Your task to perform on an android device: create a new album in the google photos Image 0: 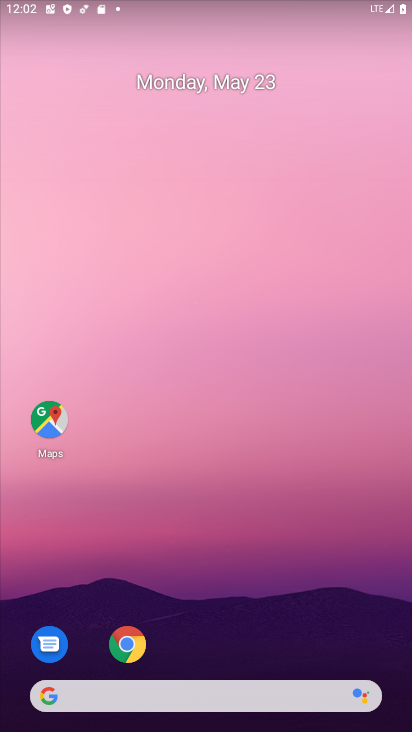
Step 0: drag from (305, 661) to (238, 0)
Your task to perform on an android device: create a new album in the google photos Image 1: 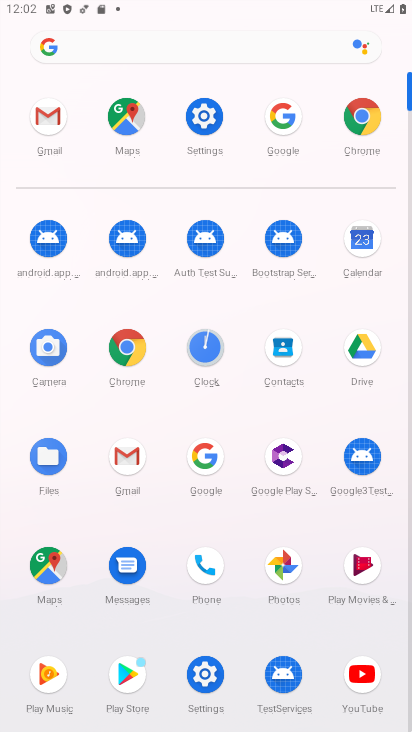
Step 1: click (278, 563)
Your task to perform on an android device: create a new album in the google photos Image 2: 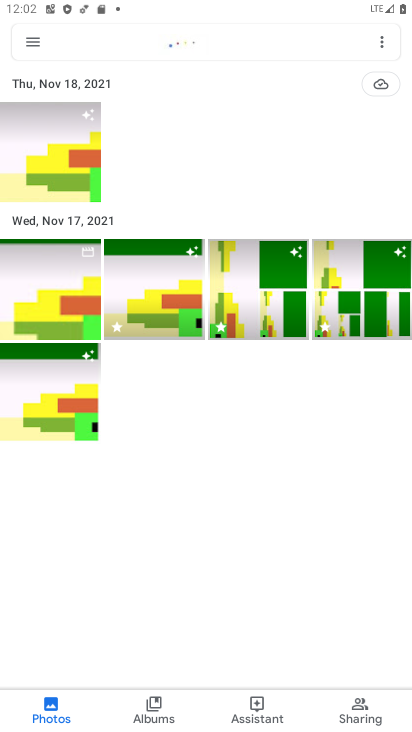
Step 2: click (45, 187)
Your task to perform on an android device: create a new album in the google photos Image 3: 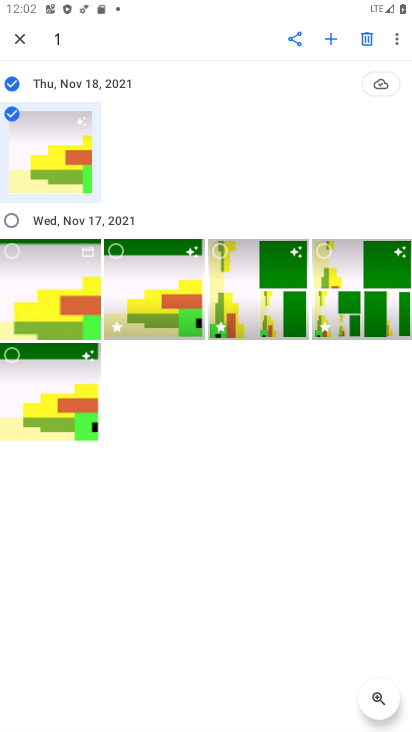
Step 3: click (331, 47)
Your task to perform on an android device: create a new album in the google photos Image 4: 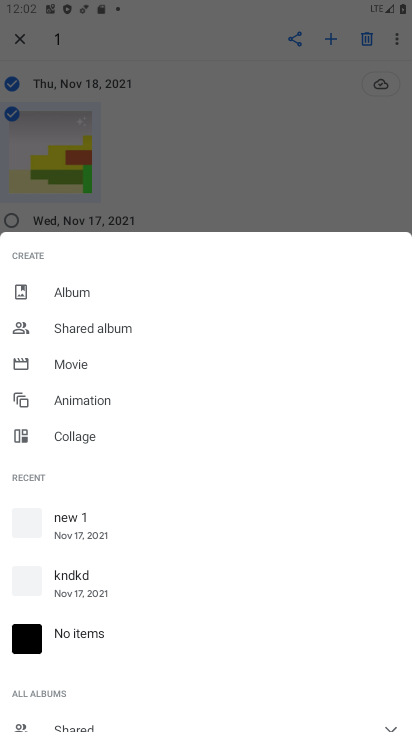
Step 4: click (135, 292)
Your task to perform on an android device: create a new album in the google photos Image 5: 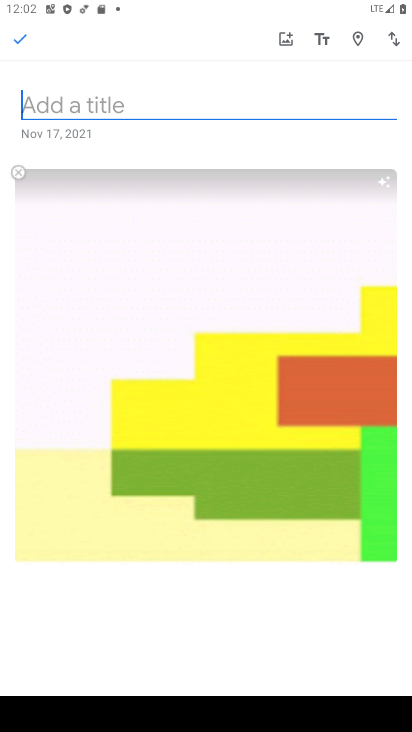
Step 5: type "MF"
Your task to perform on an android device: create a new album in the google photos Image 6: 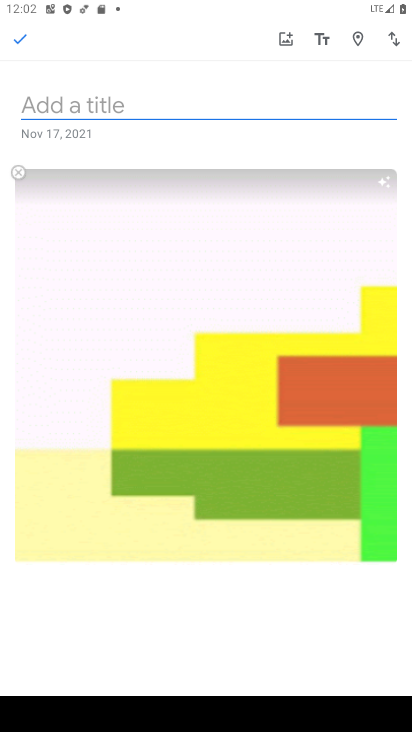
Step 6: click (13, 37)
Your task to perform on an android device: create a new album in the google photos Image 7: 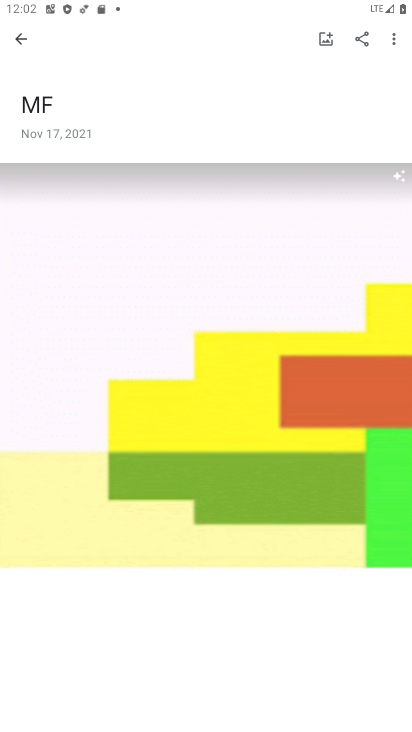
Step 7: task complete